Your task to perform on an android device: Go to CNN.com Image 0: 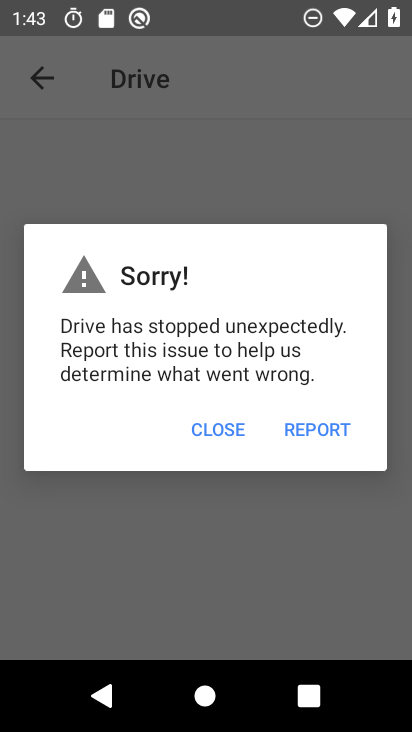
Step 0: press home button
Your task to perform on an android device: Go to CNN.com Image 1: 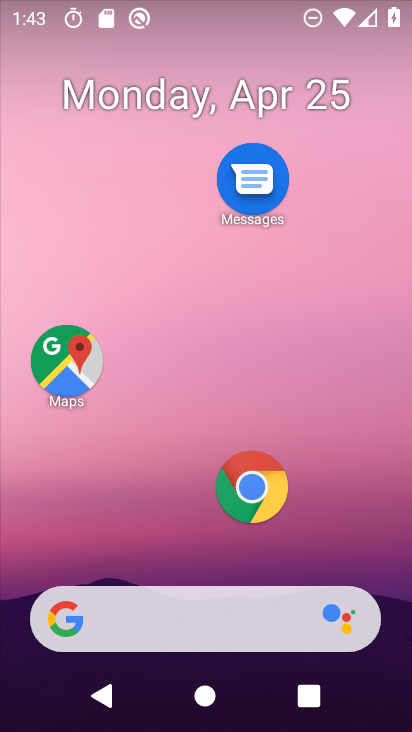
Step 1: click (283, 479)
Your task to perform on an android device: Go to CNN.com Image 2: 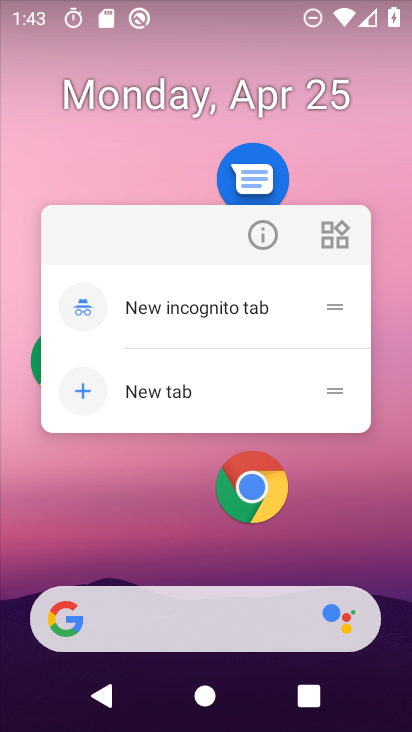
Step 2: click (256, 480)
Your task to perform on an android device: Go to CNN.com Image 3: 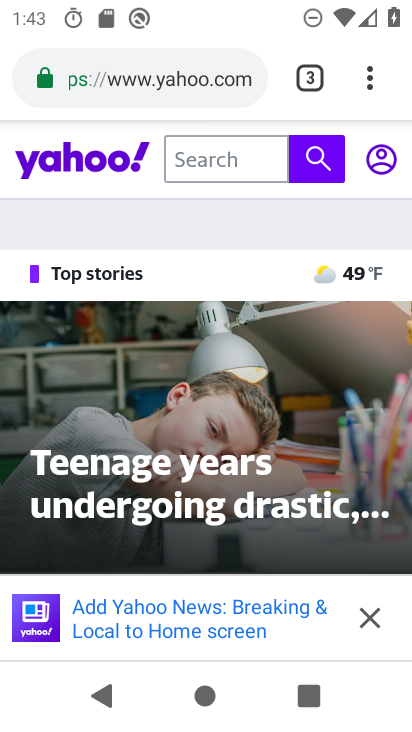
Step 3: click (205, 87)
Your task to perform on an android device: Go to CNN.com Image 4: 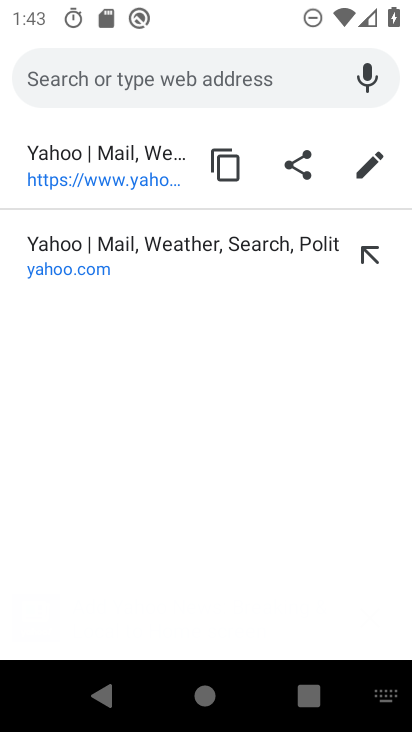
Step 4: click (279, 78)
Your task to perform on an android device: Go to CNN.com Image 5: 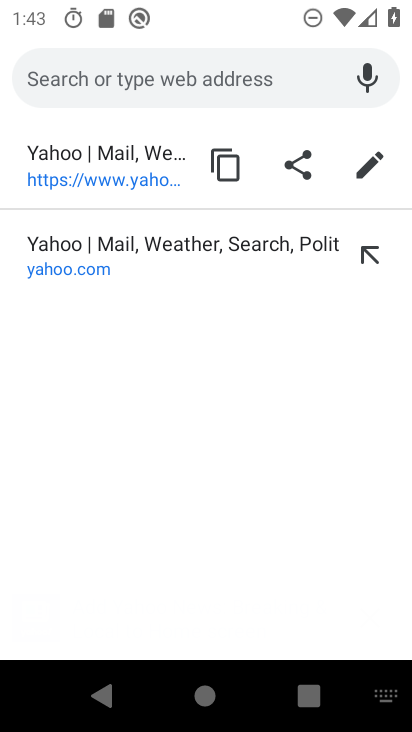
Step 5: type "cnn.com"
Your task to perform on an android device: Go to CNN.com Image 6: 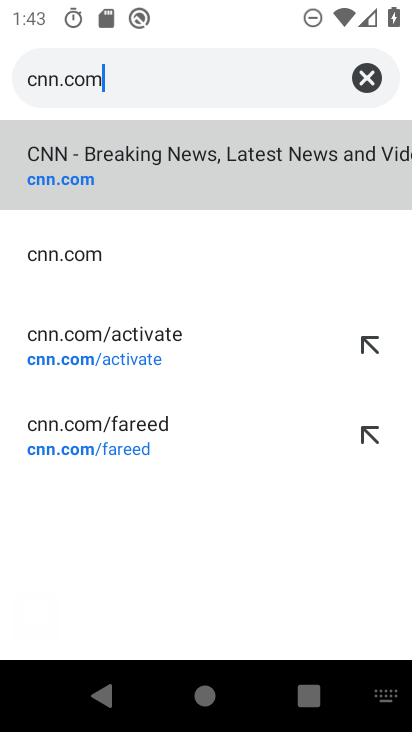
Step 6: click (251, 189)
Your task to perform on an android device: Go to CNN.com Image 7: 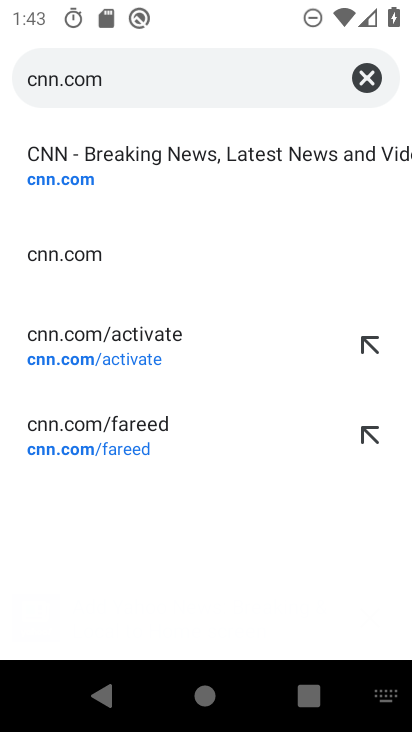
Step 7: click (190, 165)
Your task to perform on an android device: Go to CNN.com Image 8: 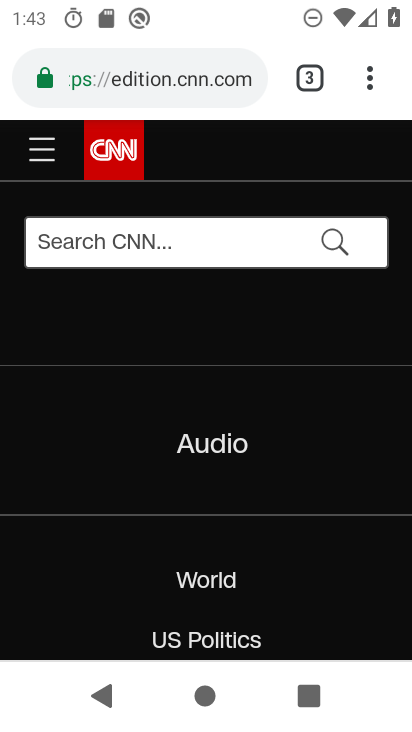
Step 8: task complete